Your task to perform on an android device: Go to battery settings Image 0: 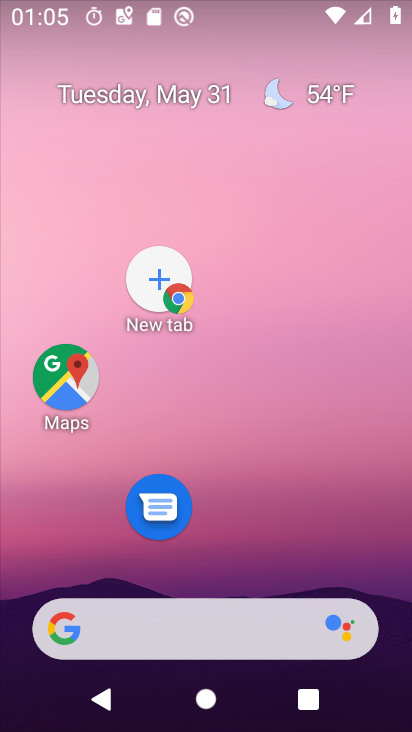
Step 0: drag from (291, 684) to (199, 261)
Your task to perform on an android device: Go to battery settings Image 1: 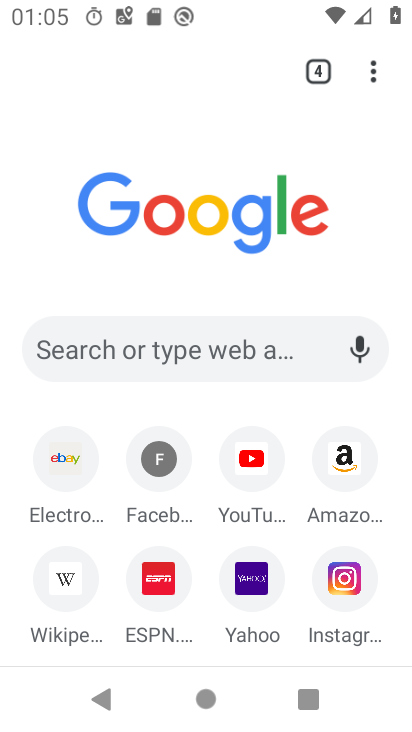
Step 1: press back button
Your task to perform on an android device: Go to battery settings Image 2: 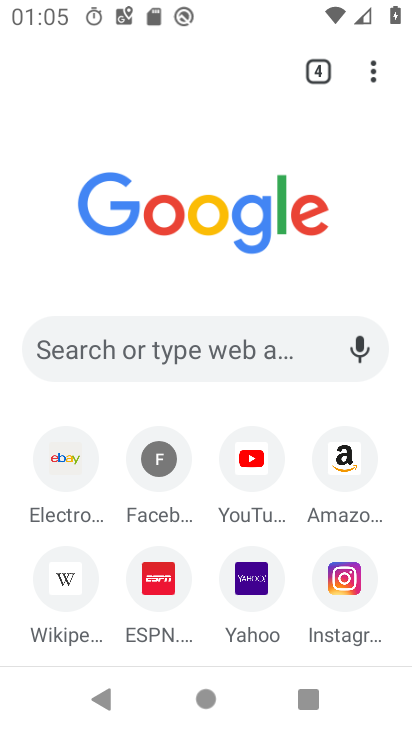
Step 2: press back button
Your task to perform on an android device: Go to battery settings Image 3: 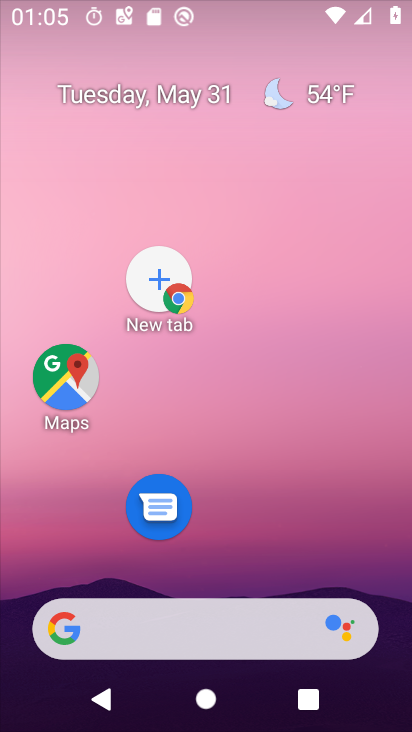
Step 3: press back button
Your task to perform on an android device: Go to battery settings Image 4: 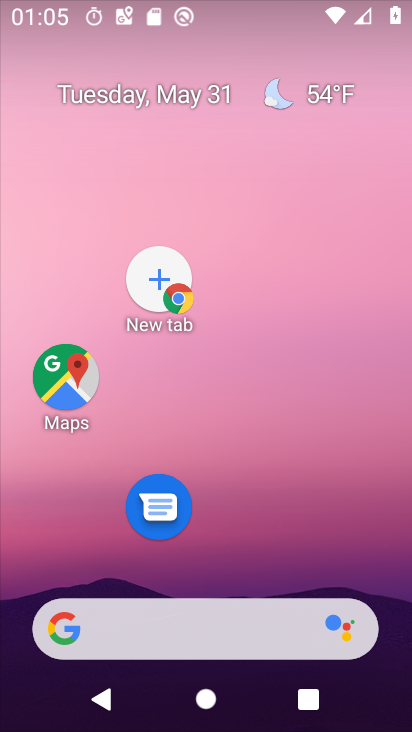
Step 4: press home button
Your task to perform on an android device: Go to battery settings Image 5: 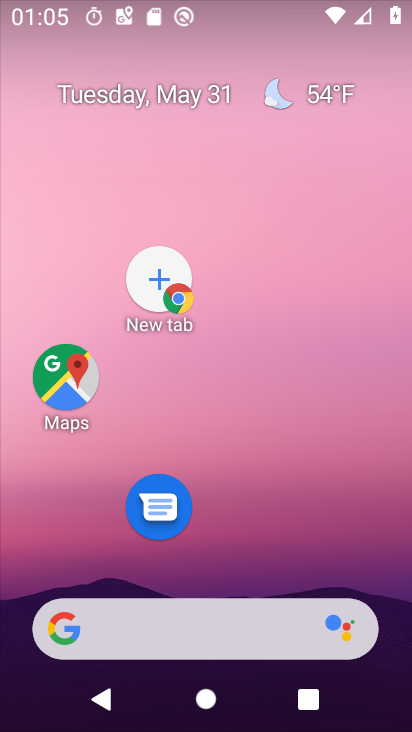
Step 5: press home button
Your task to perform on an android device: Go to battery settings Image 6: 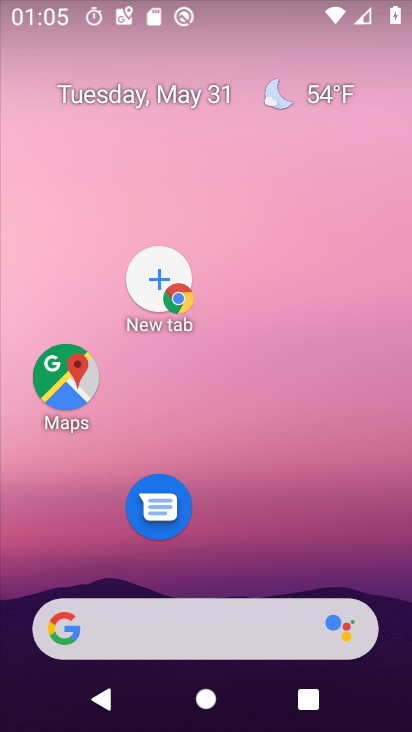
Step 6: drag from (255, 704) to (171, 10)
Your task to perform on an android device: Go to battery settings Image 7: 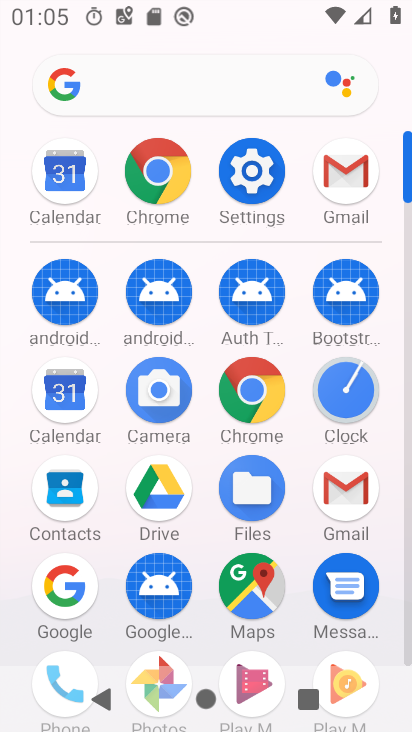
Step 7: click (245, 181)
Your task to perform on an android device: Go to battery settings Image 8: 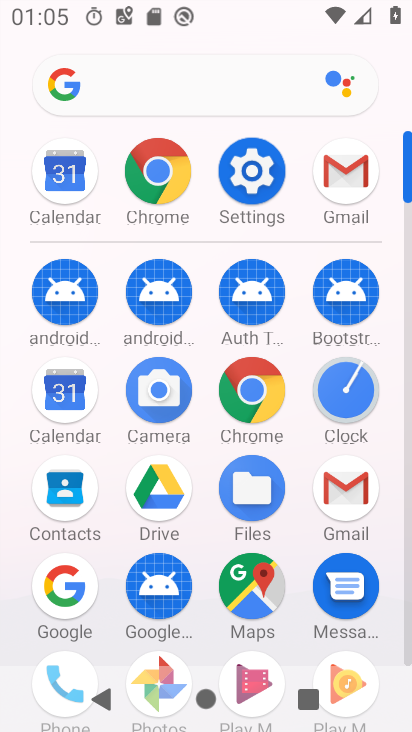
Step 8: click (247, 181)
Your task to perform on an android device: Go to battery settings Image 9: 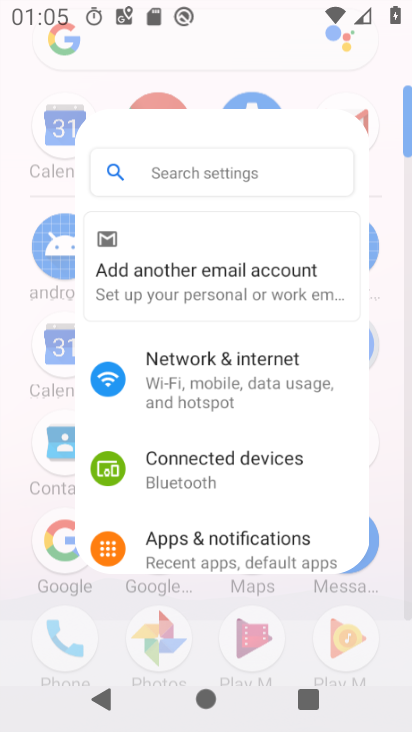
Step 9: click (247, 181)
Your task to perform on an android device: Go to battery settings Image 10: 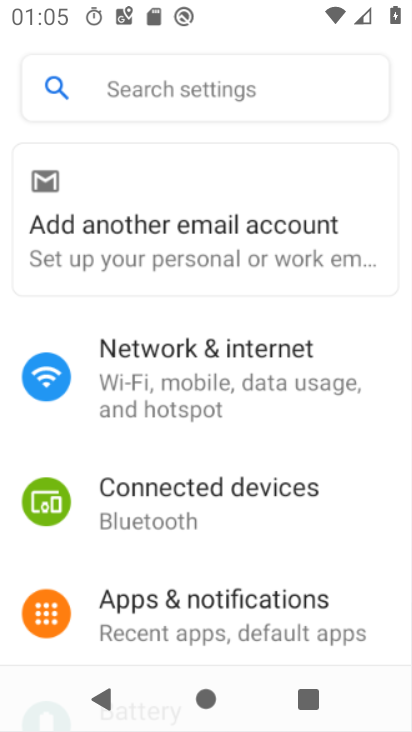
Step 10: click (247, 181)
Your task to perform on an android device: Go to battery settings Image 11: 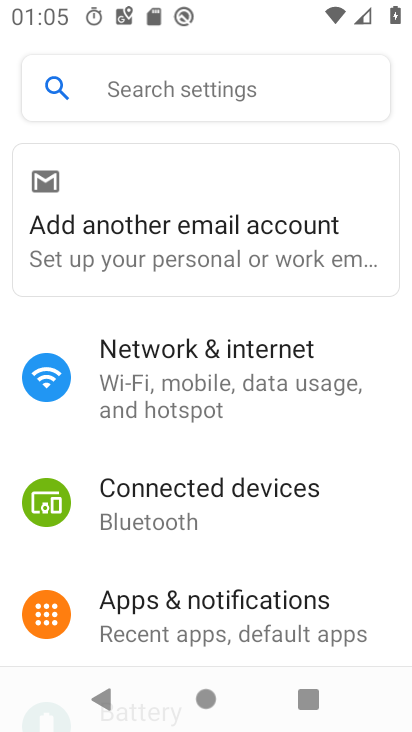
Step 11: drag from (203, 505) to (197, 146)
Your task to perform on an android device: Go to battery settings Image 12: 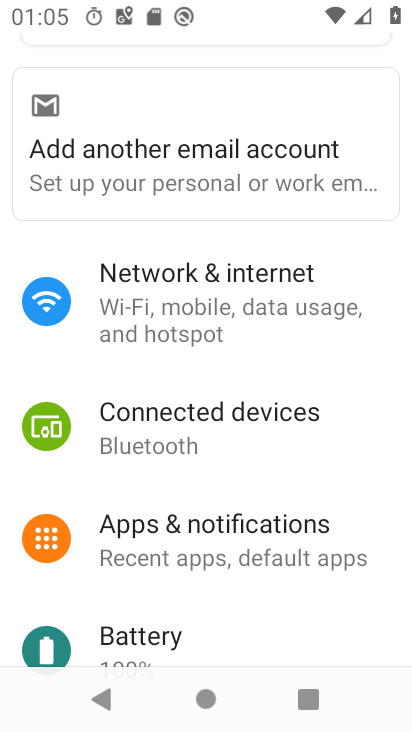
Step 12: drag from (256, 410) to (230, 247)
Your task to perform on an android device: Go to battery settings Image 13: 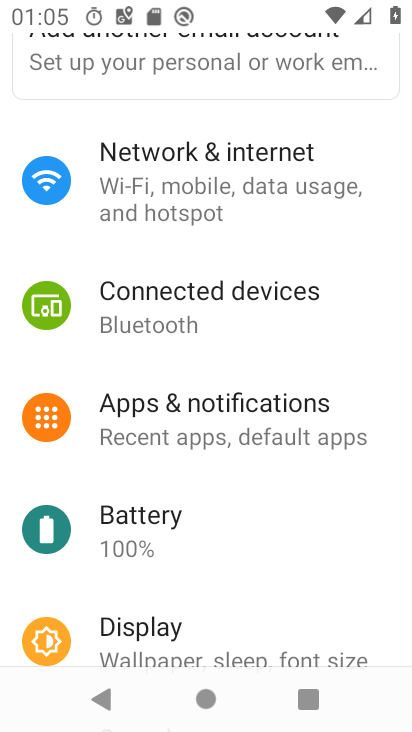
Step 13: click (144, 539)
Your task to perform on an android device: Go to battery settings Image 14: 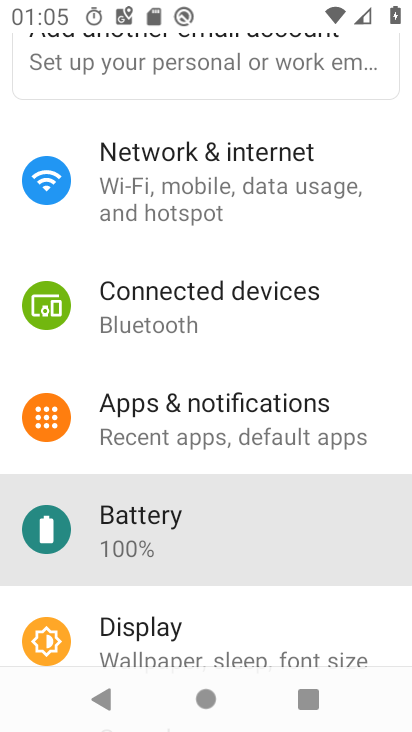
Step 14: click (134, 541)
Your task to perform on an android device: Go to battery settings Image 15: 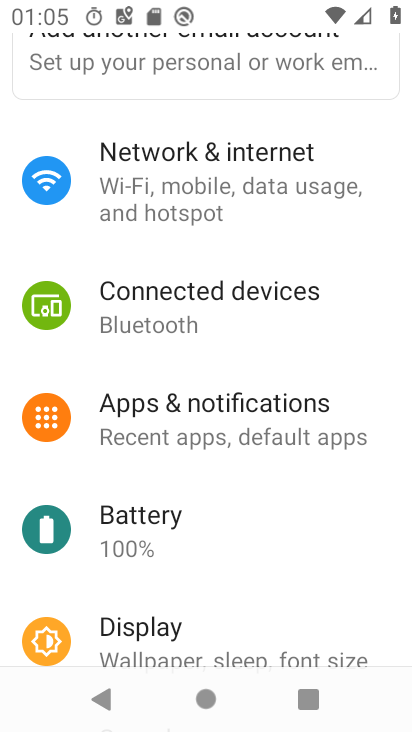
Step 15: click (131, 540)
Your task to perform on an android device: Go to battery settings Image 16: 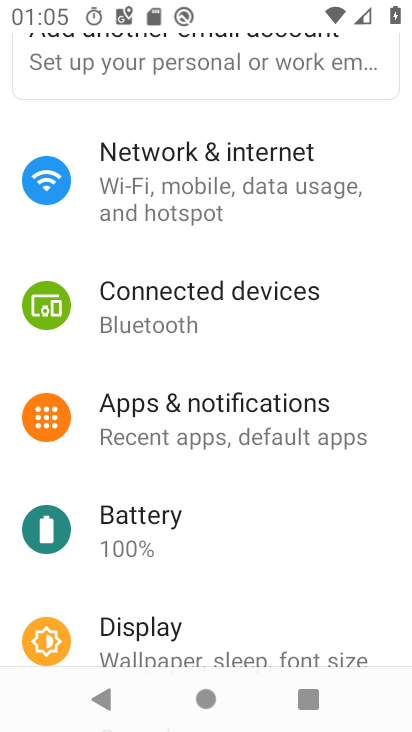
Step 16: click (132, 539)
Your task to perform on an android device: Go to battery settings Image 17: 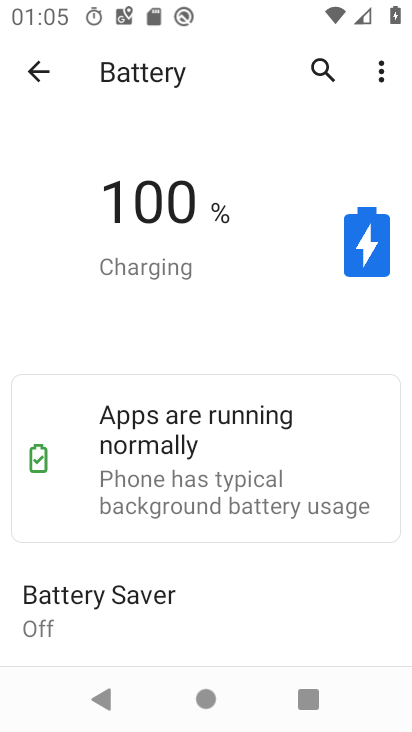
Step 17: task complete